Your task to perform on an android device: Turn off the flashlight Image 0: 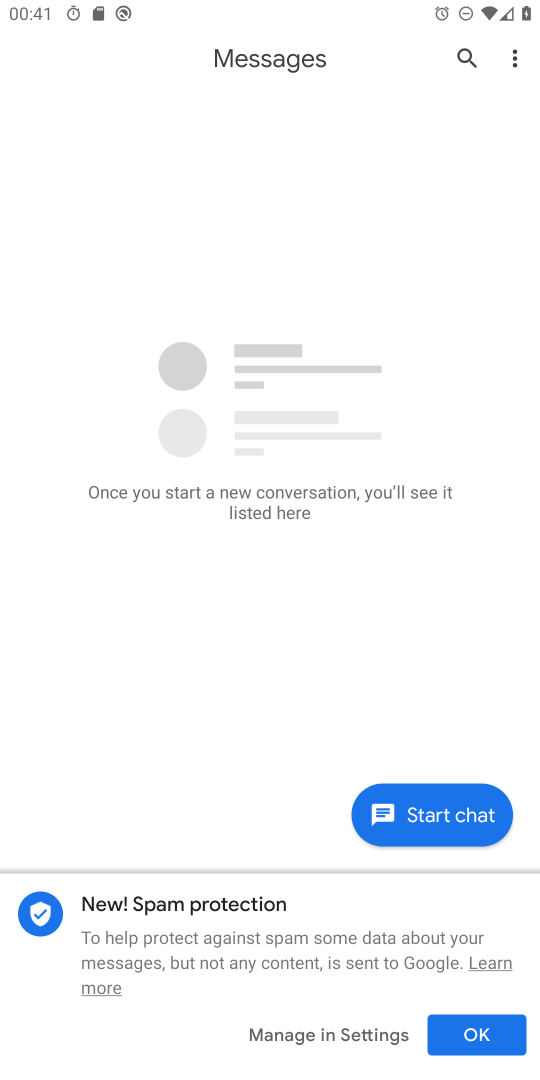
Step 0: press home button
Your task to perform on an android device: Turn off the flashlight Image 1: 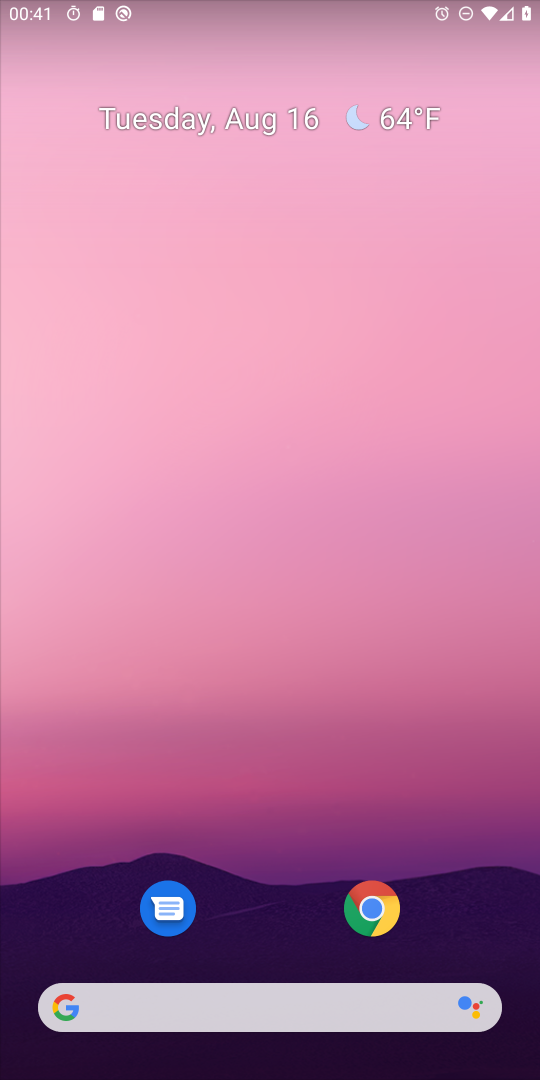
Step 1: drag from (298, 745) to (203, 253)
Your task to perform on an android device: Turn off the flashlight Image 2: 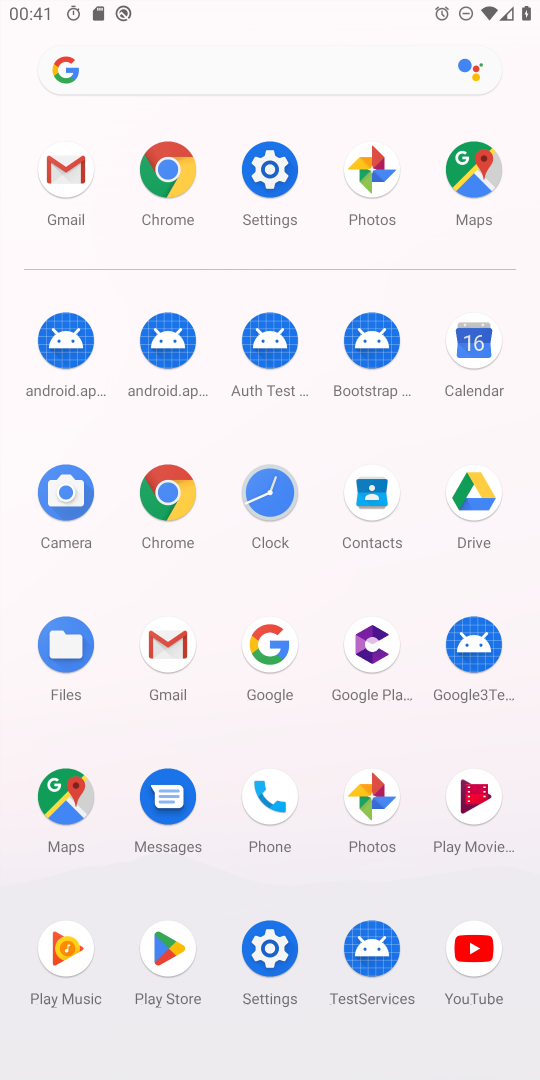
Step 2: click (273, 182)
Your task to perform on an android device: Turn off the flashlight Image 3: 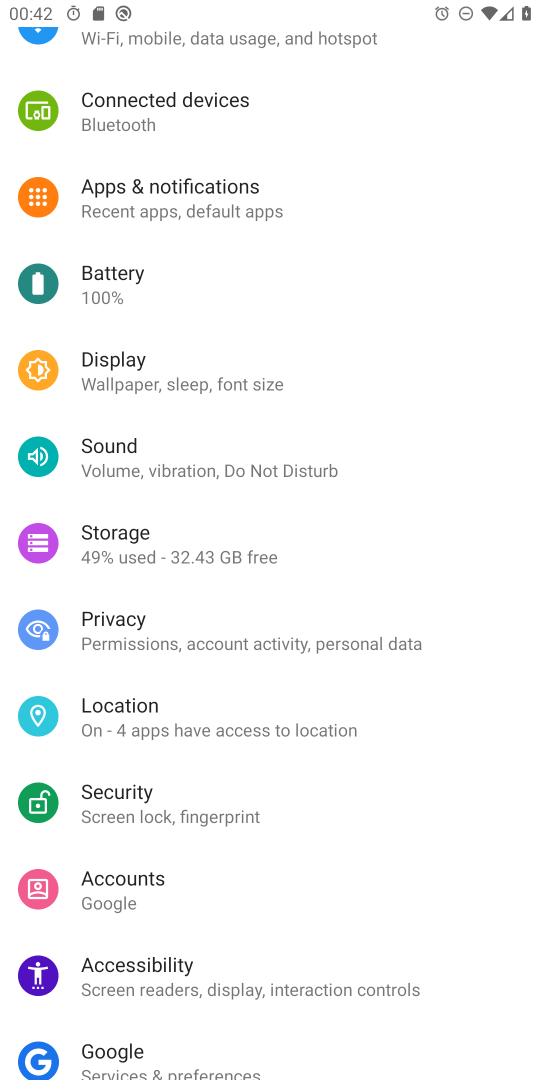
Step 3: task complete